Your task to perform on an android device: turn pop-ups off in chrome Image 0: 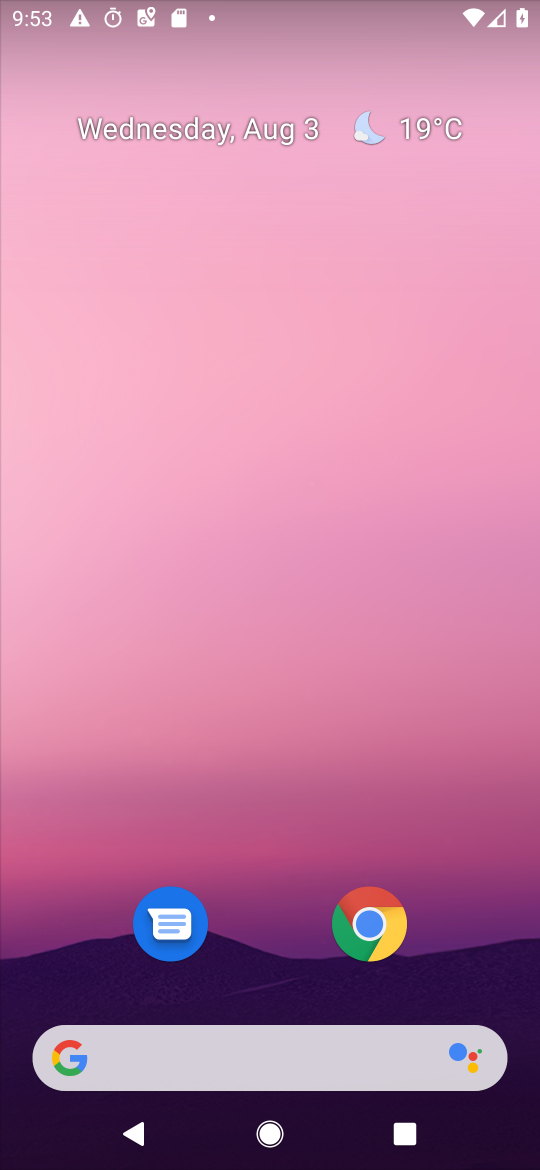
Step 0: drag from (447, 955) to (495, 301)
Your task to perform on an android device: turn pop-ups off in chrome Image 1: 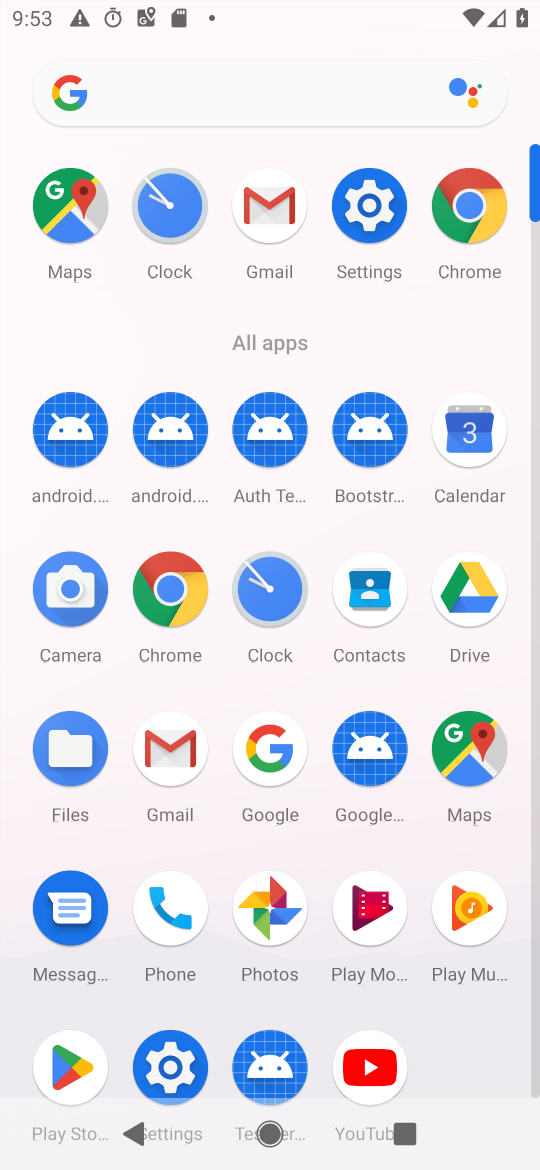
Step 1: click (486, 204)
Your task to perform on an android device: turn pop-ups off in chrome Image 2: 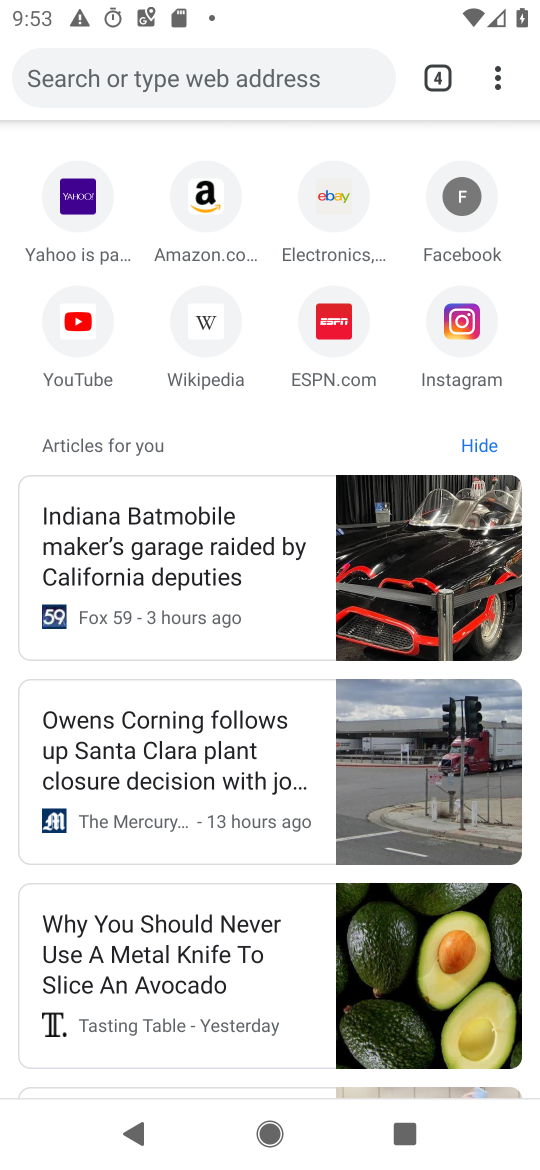
Step 2: click (492, 76)
Your task to perform on an android device: turn pop-ups off in chrome Image 3: 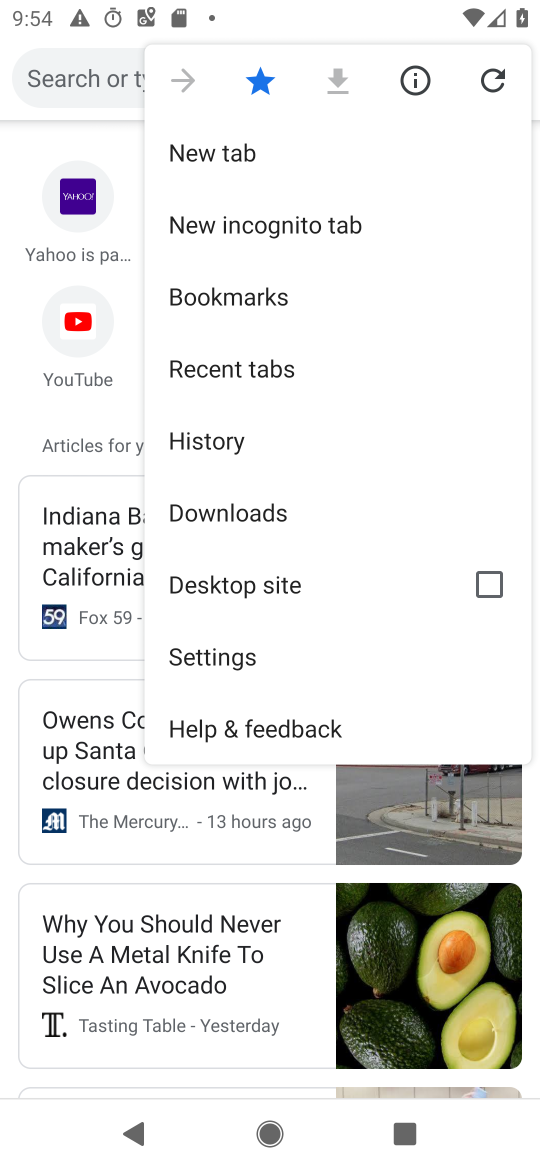
Step 3: click (268, 658)
Your task to perform on an android device: turn pop-ups off in chrome Image 4: 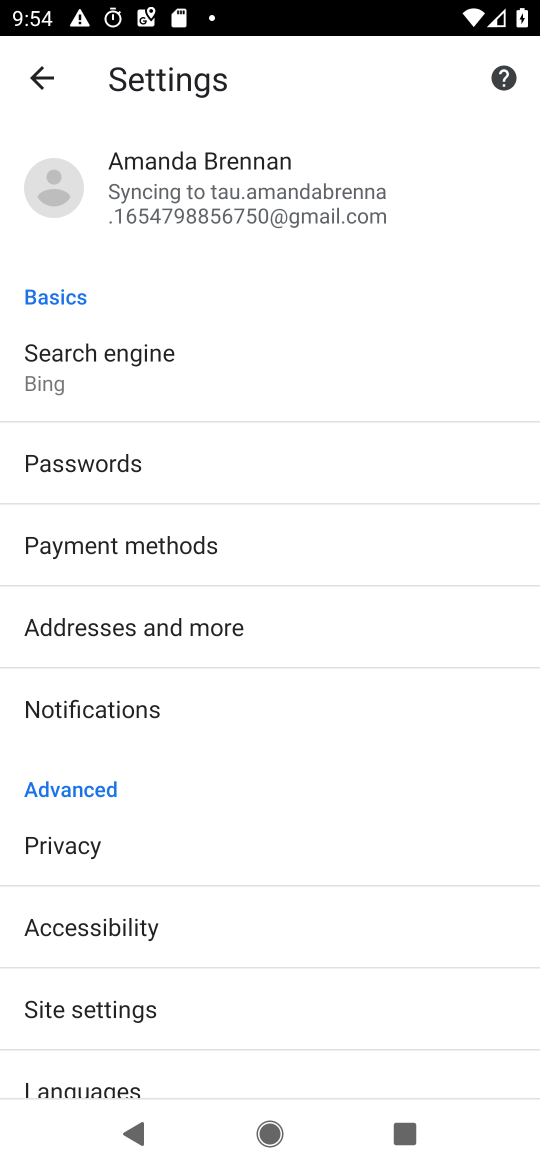
Step 4: click (173, 1000)
Your task to perform on an android device: turn pop-ups off in chrome Image 5: 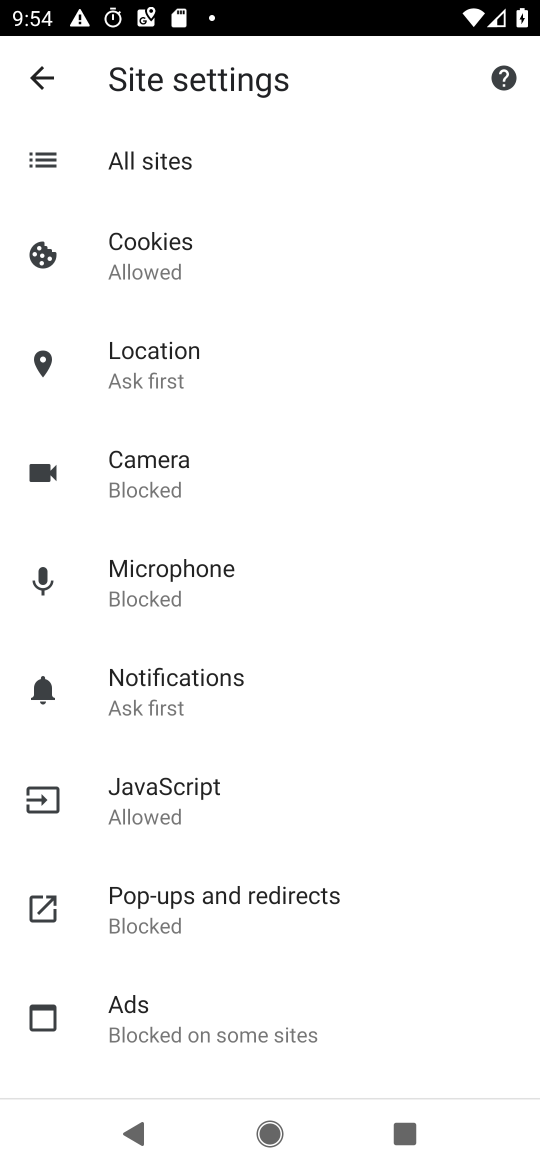
Step 5: click (207, 910)
Your task to perform on an android device: turn pop-ups off in chrome Image 6: 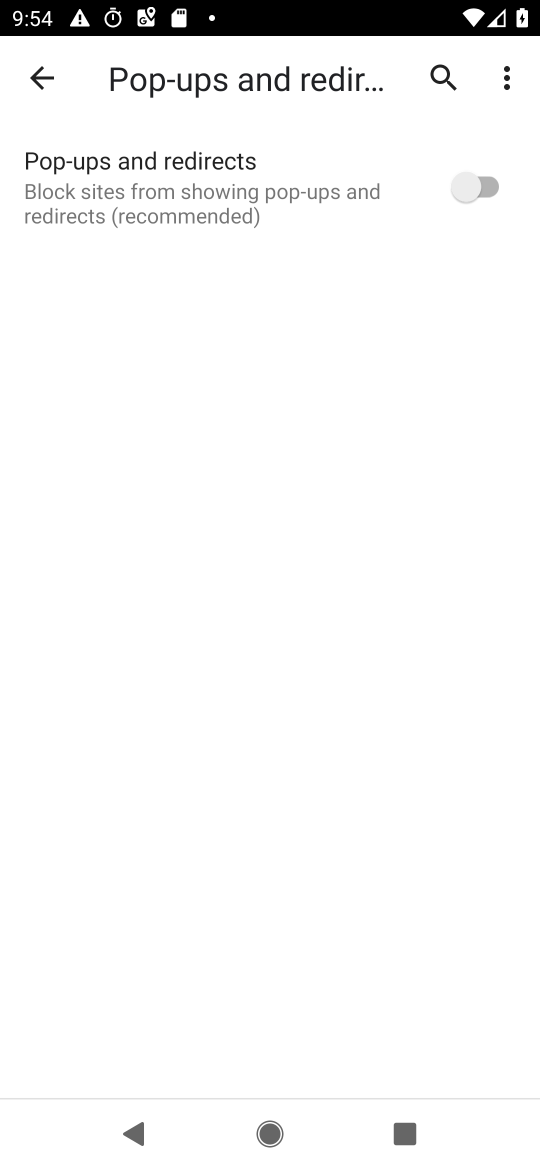
Step 6: task complete